Your task to perform on an android device: turn off smart reply in the gmail app Image 0: 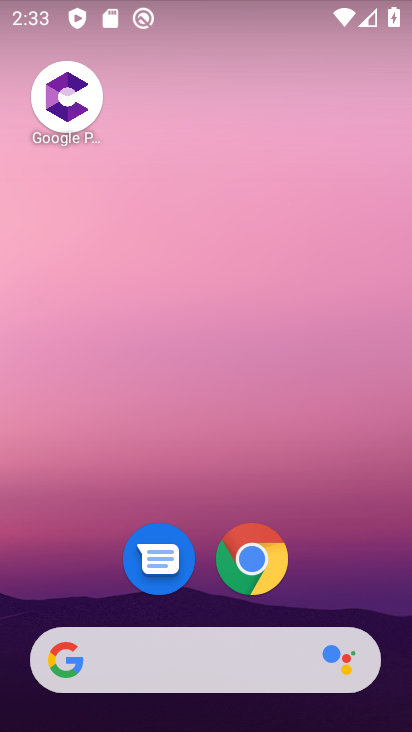
Step 0: drag from (200, 609) to (215, 123)
Your task to perform on an android device: turn off smart reply in the gmail app Image 1: 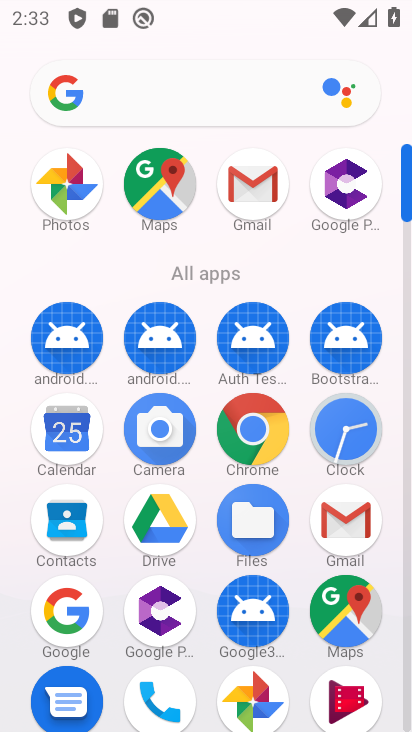
Step 1: click (248, 174)
Your task to perform on an android device: turn off smart reply in the gmail app Image 2: 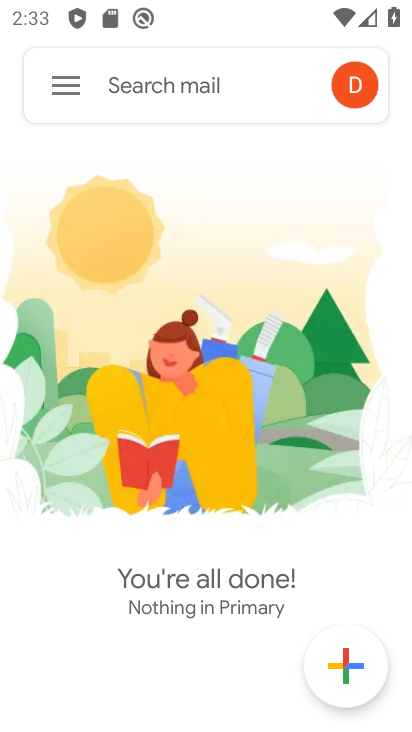
Step 2: click (60, 80)
Your task to perform on an android device: turn off smart reply in the gmail app Image 3: 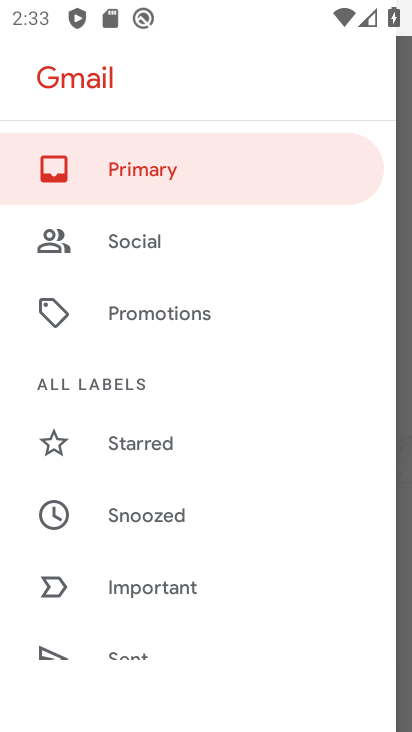
Step 3: drag from (197, 627) to (242, 161)
Your task to perform on an android device: turn off smart reply in the gmail app Image 4: 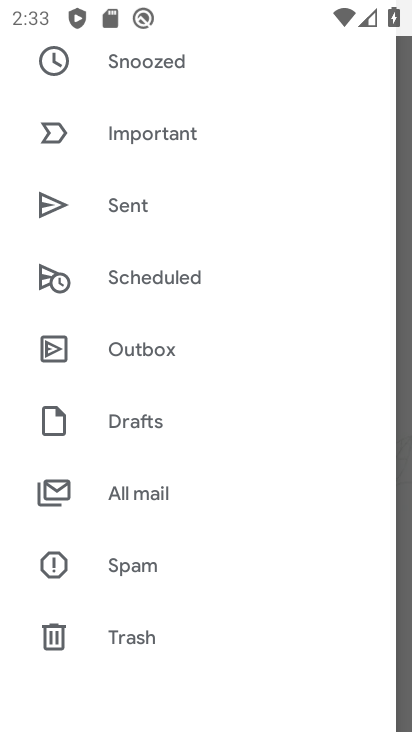
Step 4: drag from (158, 632) to (200, 189)
Your task to perform on an android device: turn off smart reply in the gmail app Image 5: 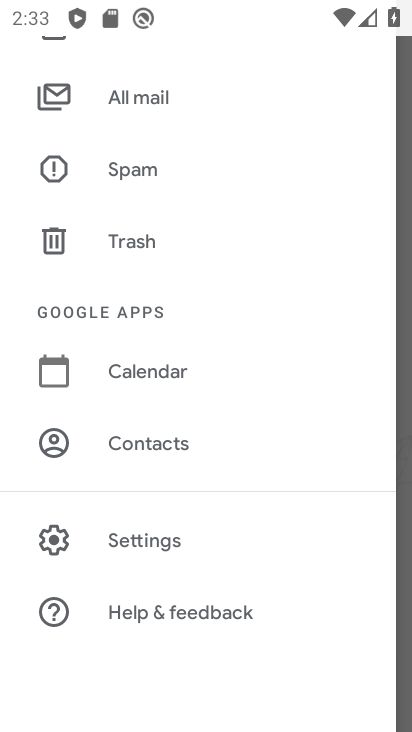
Step 5: click (190, 529)
Your task to perform on an android device: turn off smart reply in the gmail app Image 6: 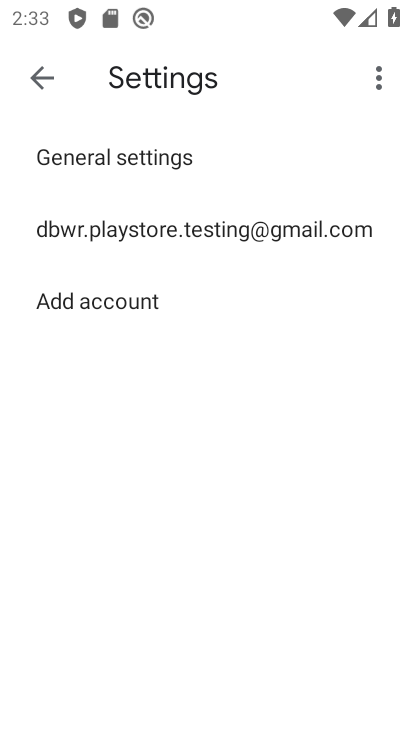
Step 6: click (175, 235)
Your task to perform on an android device: turn off smart reply in the gmail app Image 7: 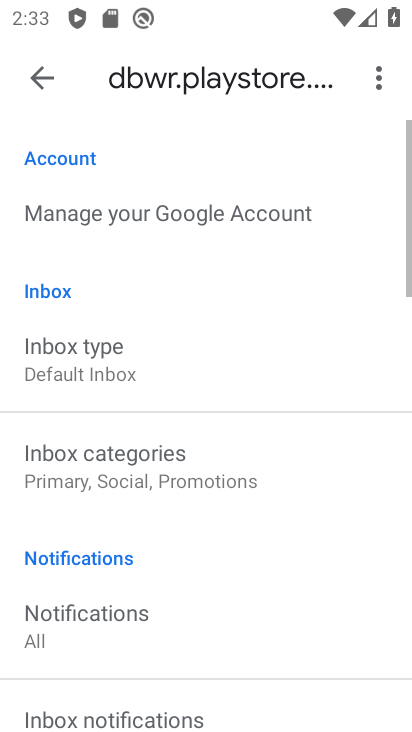
Step 7: drag from (187, 670) to (223, 121)
Your task to perform on an android device: turn off smart reply in the gmail app Image 8: 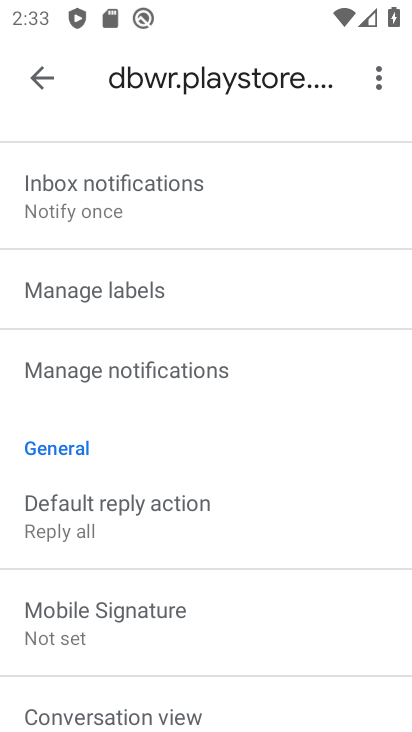
Step 8: drag from (190, 677) to (204, 178)
Your task to perform on an android device: turn off smart reply in the gmail app Image 9: 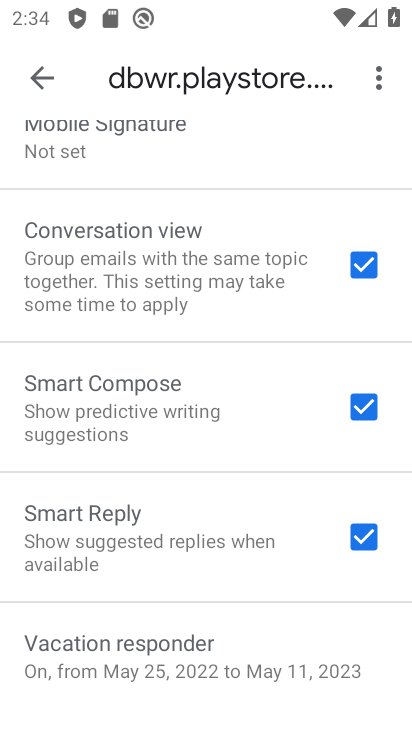
Step 9: click (360, 532)
Your task to perform on an android device: turn off smart reply in the gmail app Image 10: 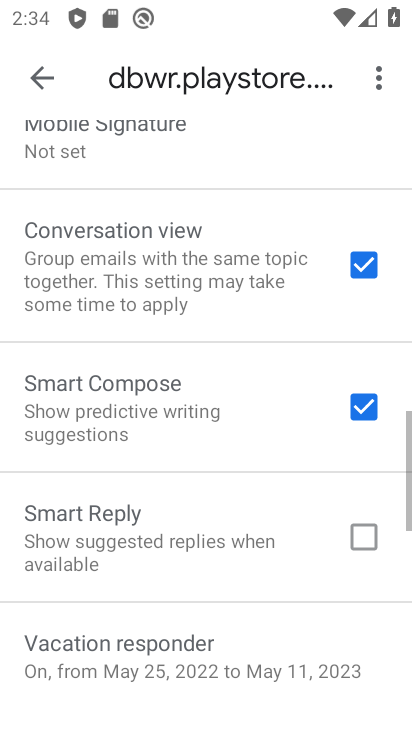
Step 10: task complete